Your task to perform on an android device: turn off javascript in the chrome app Image 0: 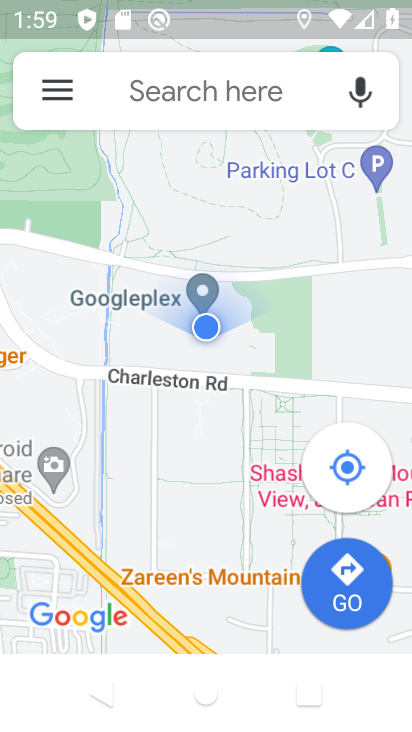
Step 0: press home button
Your task to perform on an android device: turn off javascript in the chrome app Image 1: 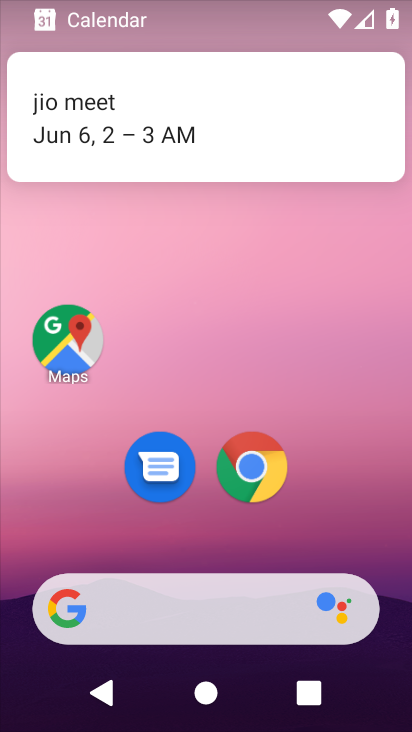
Step 1: click (258, 461)
Your task to perform on an android device: turn off javascript in the chrome app Image 2: 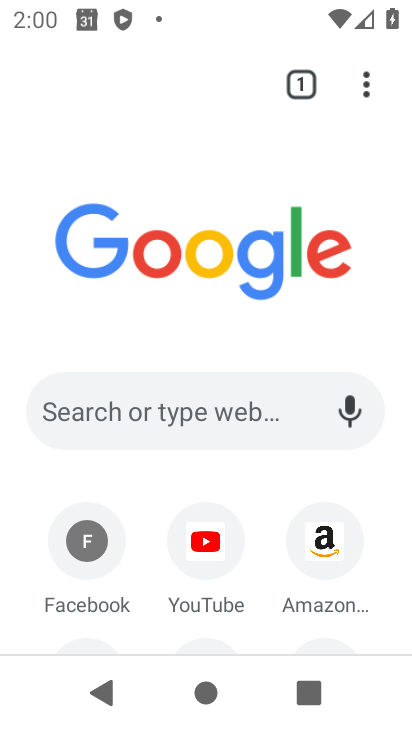
Step 2: click (367, 75)
Your task to perform on an android device: turn off javascript in the chrome app Image 3: 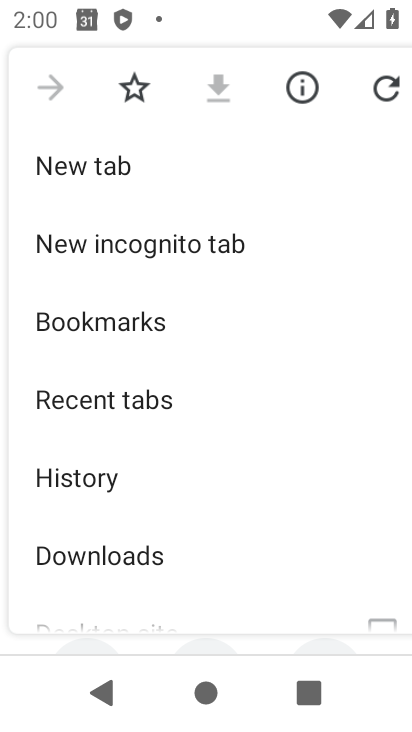
Step 3: drag from (118, 546) to (200, 169)
Your task to perform on an android device: turn off javascript in the chrome app Image 4: 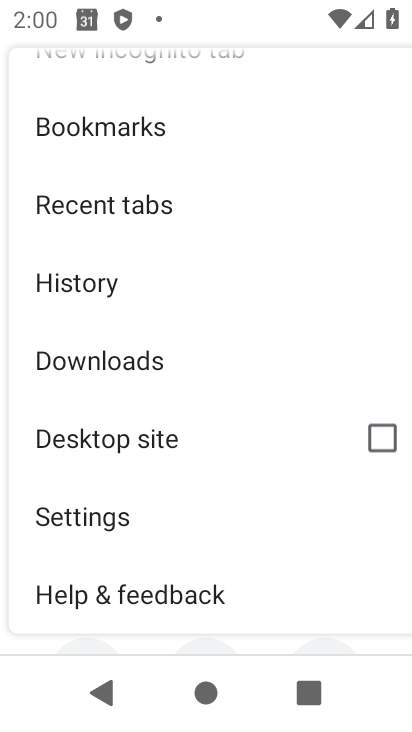
Step 4: drag from (151, 564) to (235, 238)
Your task to perform on an android device: turn off javascript in the chrome app Image 5: 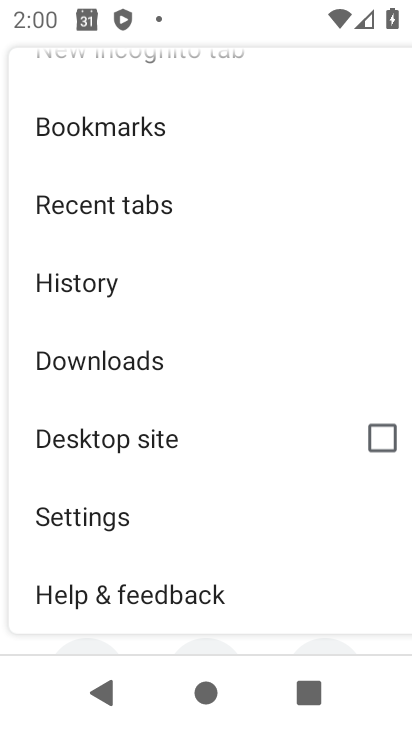
Step 5: click (96, 514)
Your task to perform on an android device: turn off javascript in the chrome app Image 6: 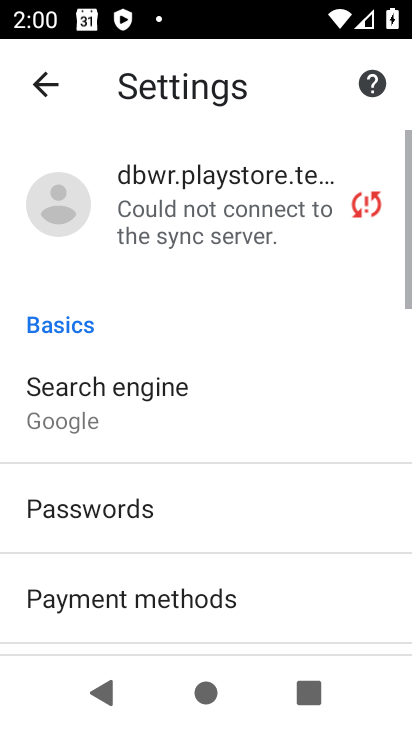
Step 6: drag from (208, 592) to (357, 90)
Your task to perform on an android device: turn off javascript in the chrome app Image 7: 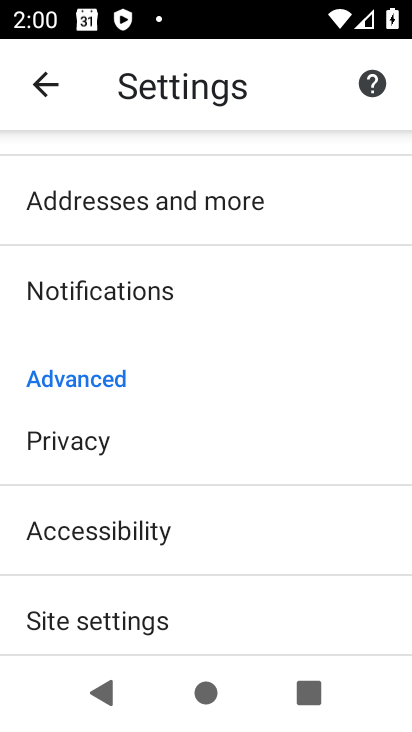
Step 7: click (138, 610)
Your task to perform on an android device: turn off javascript in the chrome app Image 8: 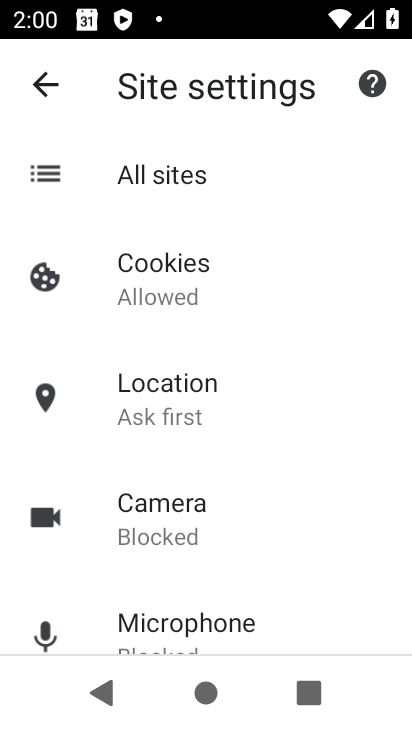
Step 8: drag from (327, 590) to (331, 55)
Your task to perform on an android device: turn off javascript in the chrome app Image 9: 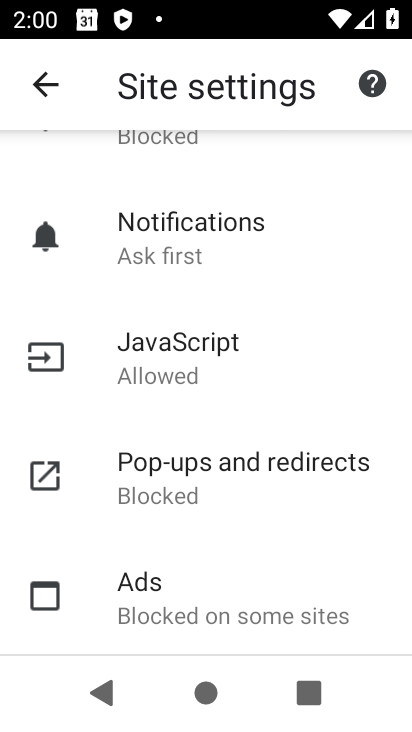
Step 9: click (127, 364)
Your task to perform on an android device: turn off javascript in the chrome app Image 10: 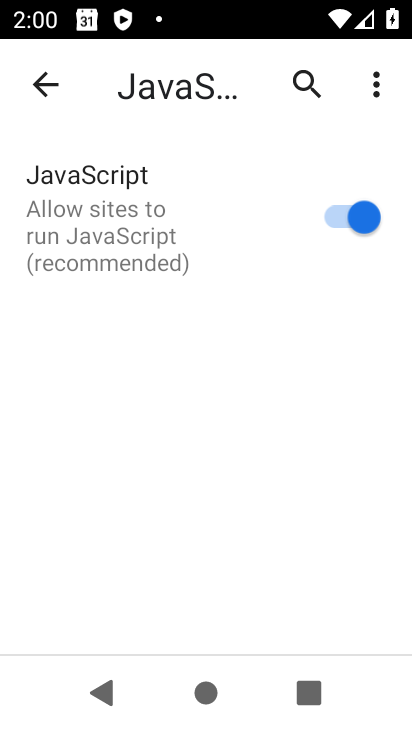
Step 10: click (340, 219)
Your task to perform on an android device: turn off javascript in the chrome app Image 11: 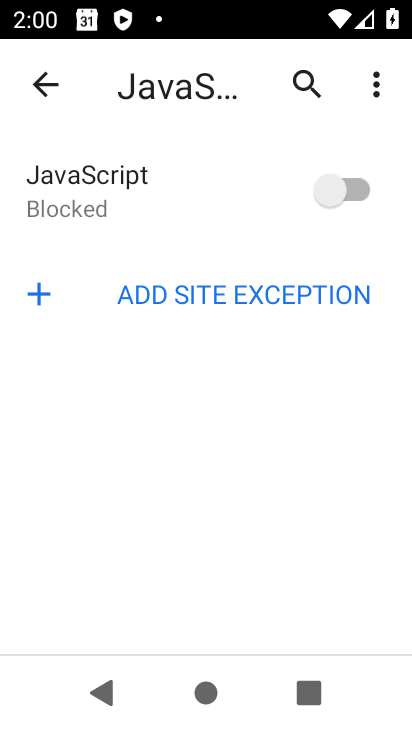
Step 11: task complete